Your task to perform on an android device: turn smart compose on in the gmail app Image 0: 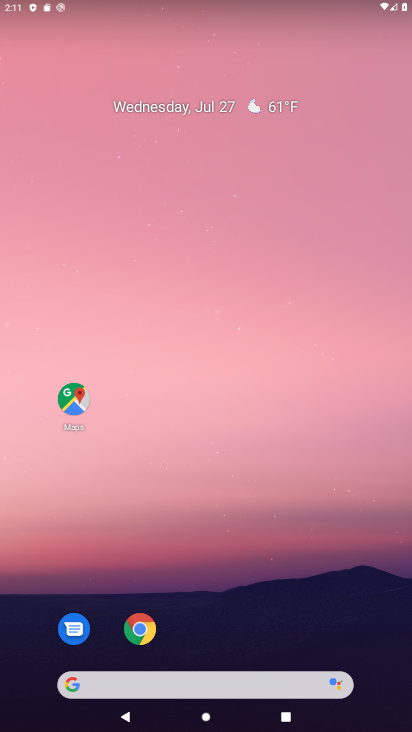
Step 0: drag from (193, 678) to (356, 101)
Your task to perform on an android device: turn smart compose on in the gmail app Image 1: 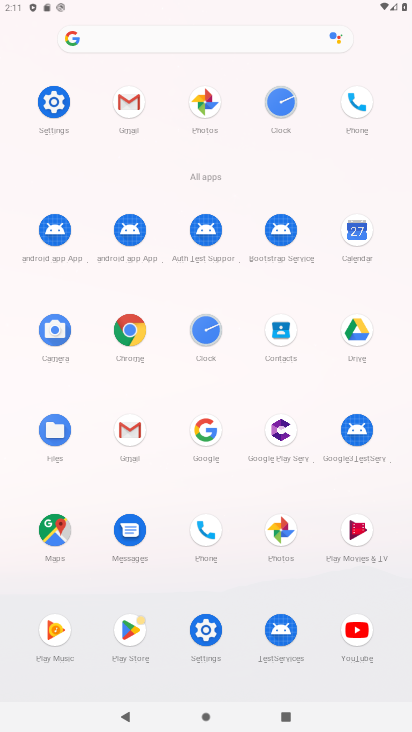
Step 1: click (127, 102)
Your task to perform on an android device: turn smart compose on in the gmail app Image 2: 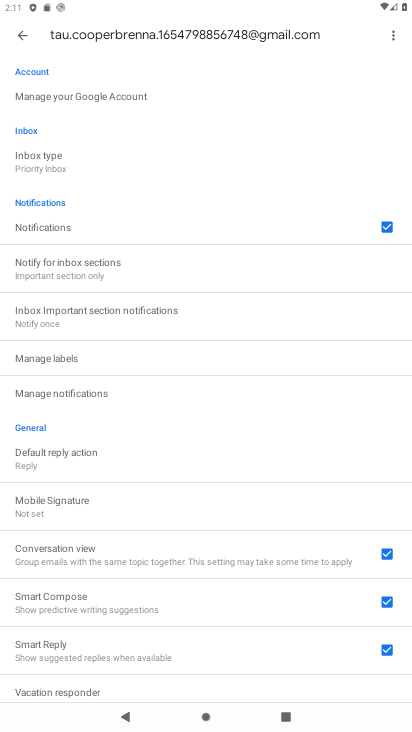
Step 2: task complete